Your task to perform on an android device: Go to Wikipedia Image 0: 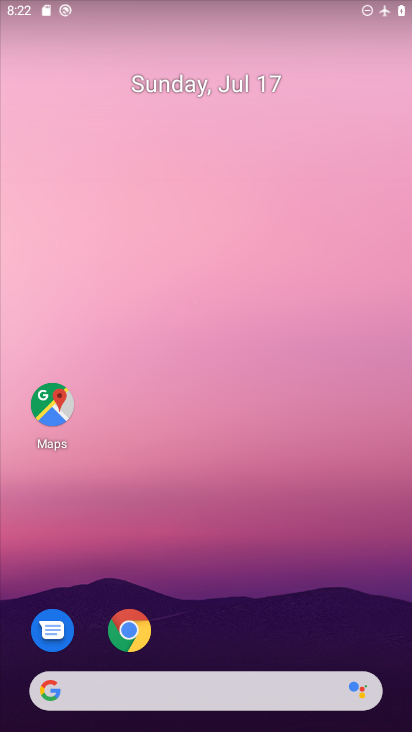
Step 0: drag from (305, 635) to (261, 179)
Your task to perform on an android device: Go to Wikipedia Image 1: 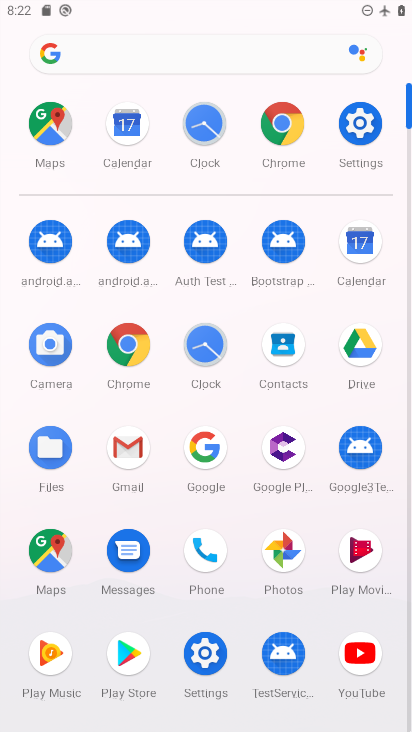
Step 1: click (279, 118)
Your task to perform on an android device: Go to Wikipedia Image 2: 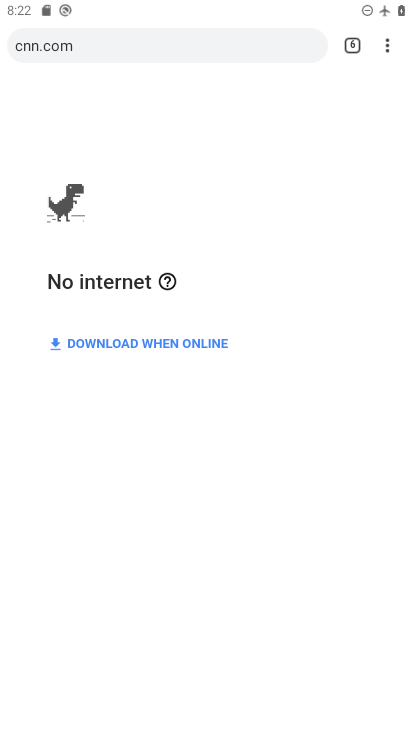
Step 2: click (401, 34)
Your task to perform on an android device: Go to Wikipedia Image 3: 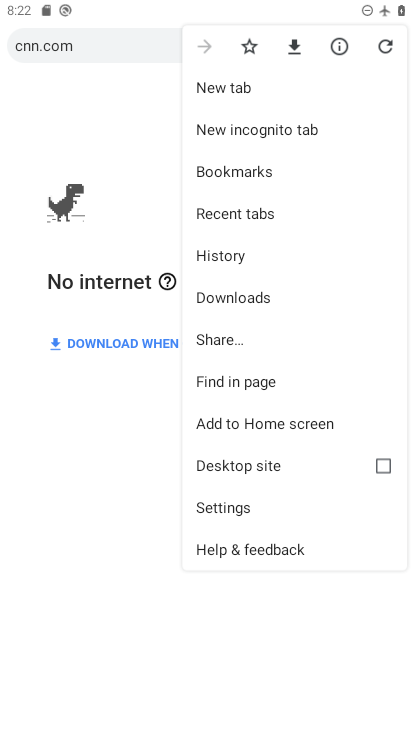
Step 3: click (221, 79)
Your task to perform on an android device: Go to Wikipedia Image 4: 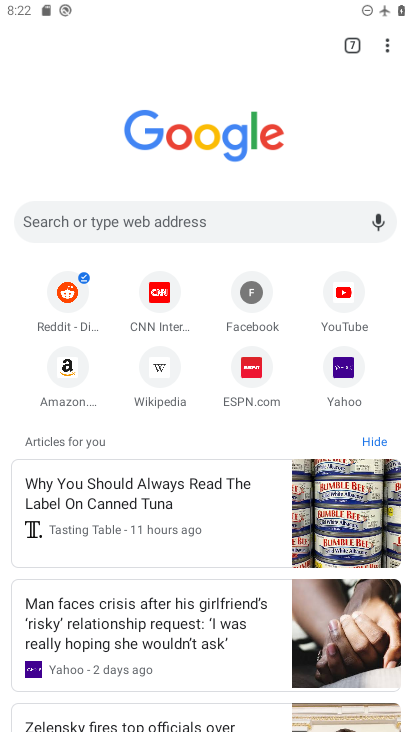
Step 4: click (144, 358)
Your task to perform on an android device: Go to Wikipedia Image 5: 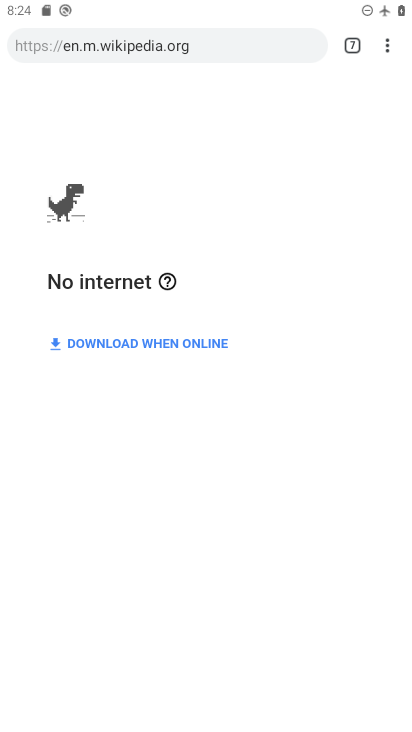
Step 5: task complete